Your task to perform on an android device: change your default location settings in chrome Image 0: 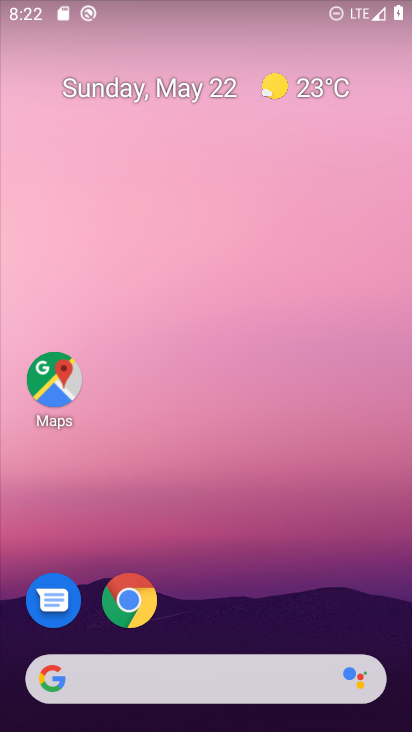
Step 0: drag from (372, 600) to (218, 85)
Your task to perform on an android device: change your default location settings in chrome Image 1: 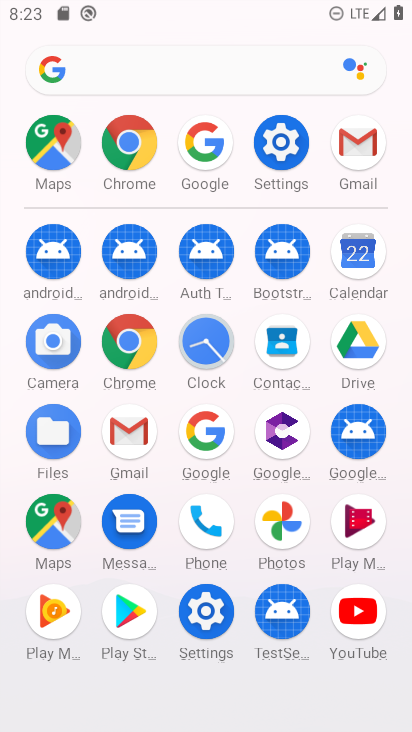
Step 1: click (138, 343)
Your task to perform on an android device: change your default location settings in chrome Image 2: 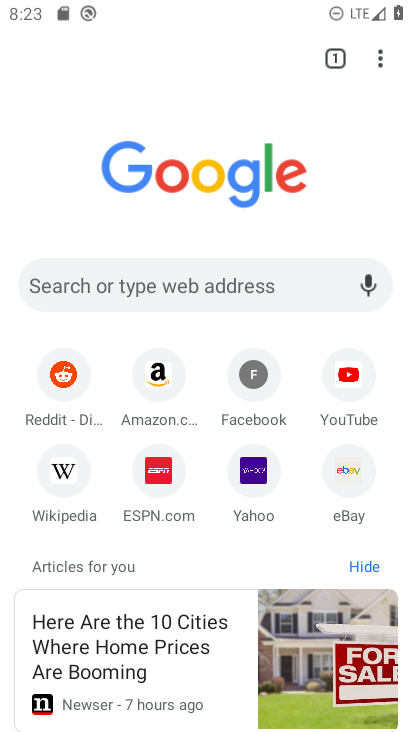
Step 2: click (386, 54)
Your task to perform on an android device: change your default location settings in chrome Image 3: 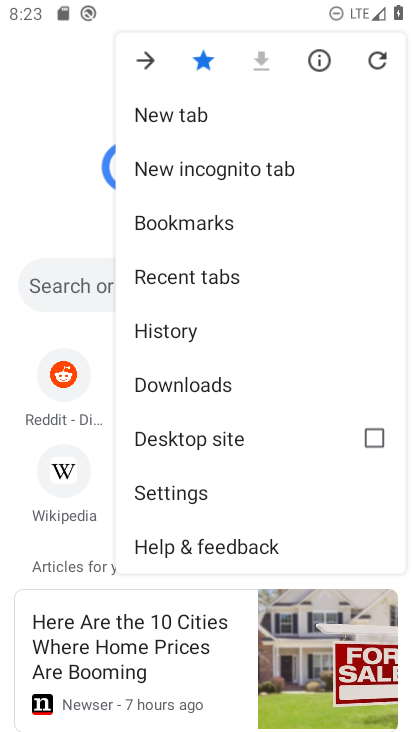
Step 3: click (218, 499)
Your task to perform on an android device: change your default location settings in chrome Image 4: 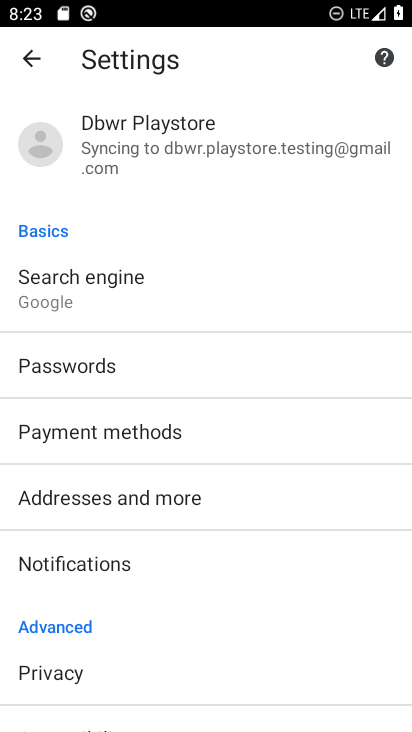
Step 4: click (147, 295)
Your task to perform on an android device: change your default location settings in chrome Image 5: 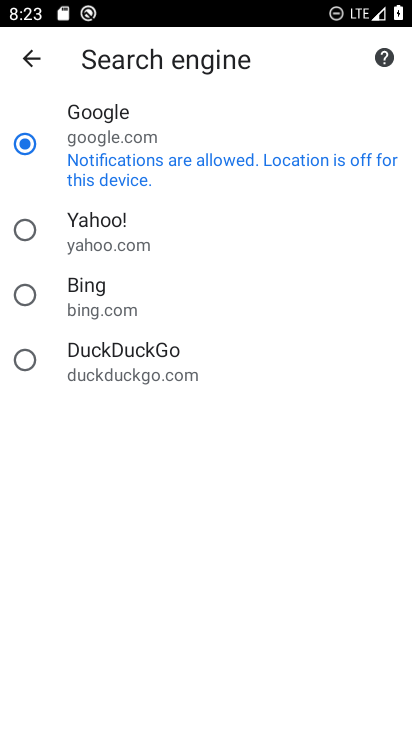
Step 5: click (116, 297)
Your task to perform on an android device: change your default location settings in chrome Image 6: 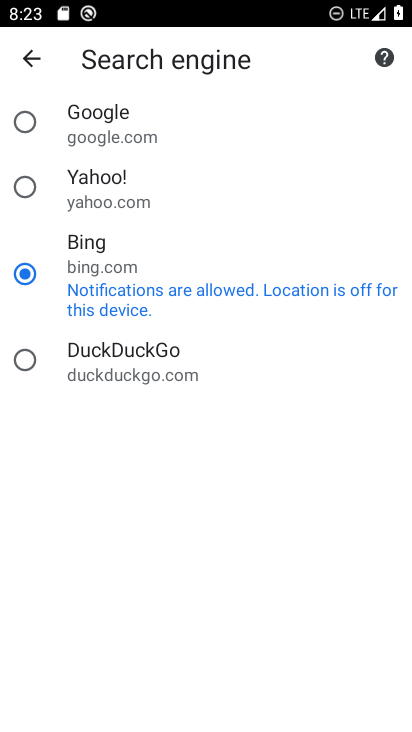
Step 6: task complete